Your task to perform on an android device: Go to network settings Image 0: 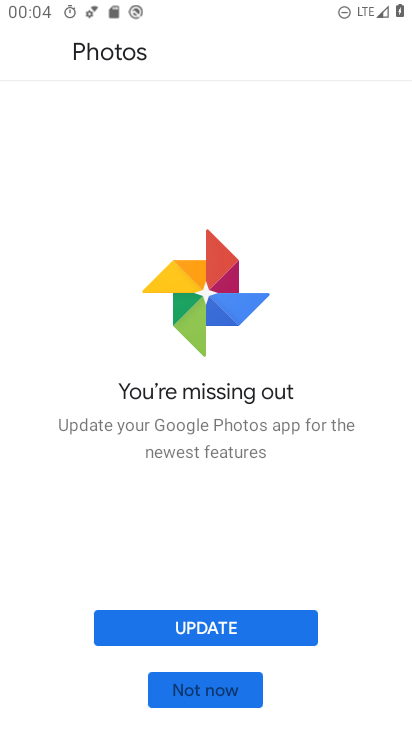
Step 0: press home button
Your task to perform on an android device: Go to network settings Image 1: 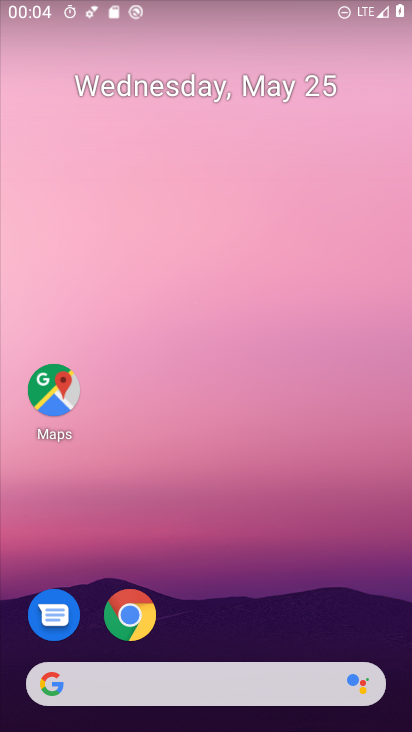
Step 1: drag from (258, 700) to (325, 5)
Your task to perform on an android device: Go to network settings Image 2: 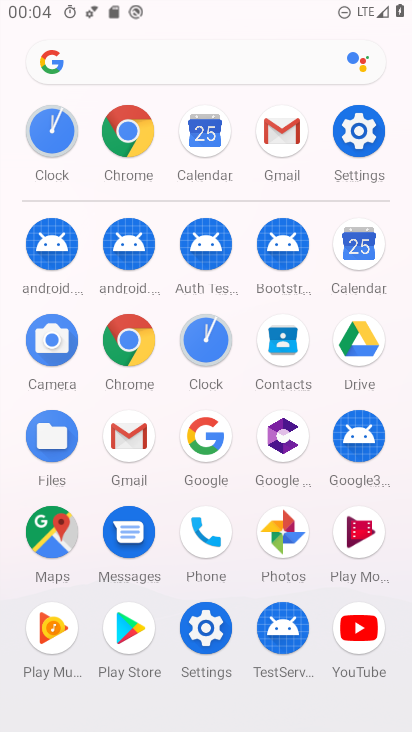
Step 2: click (358, 135)
Your task to perform on an android device: Go to network settings Image 3: 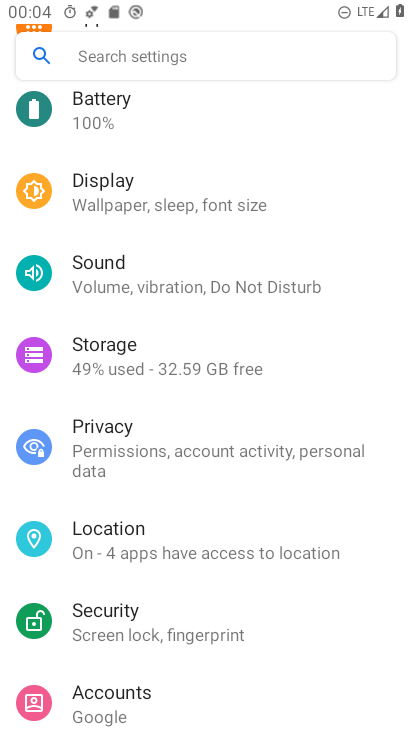
Step 3: drag from (176, 215) to (127, 462)
Your task to perform on an android device: Go to network settings Image 4: 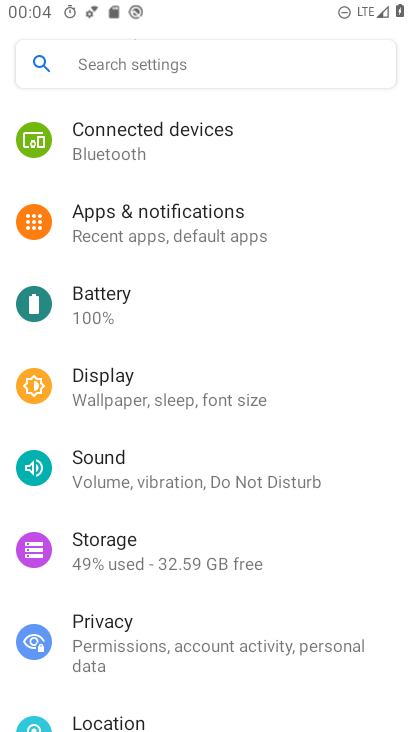
Step 4: drag from (169, 132) to (123, 360)
Your task to perform on an android device: Go to network settings Image 5: 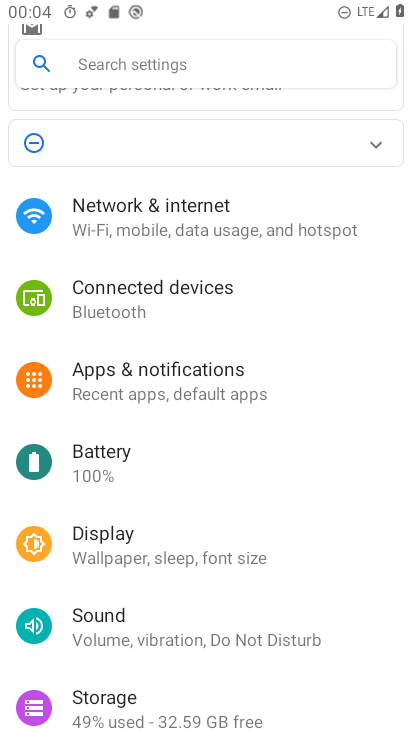
Step 5: click (156, 224)
Your task to perform on an android device: Go to network settings Image 6: 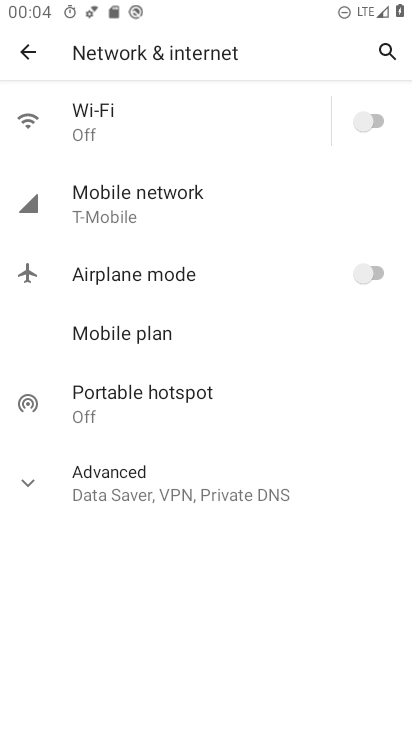
Step 6: task complete